Your task to perform on an android device: check google app version Image 0: 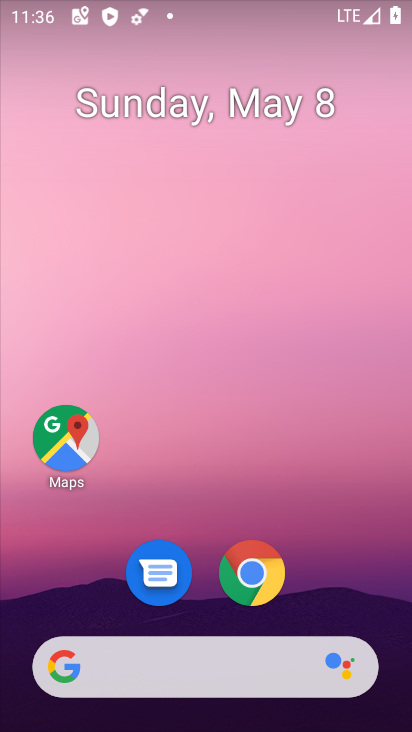
Step 0: drag from (317, 569) to (304, 36)
Your task to perform on an android device: check google app version Image 1: 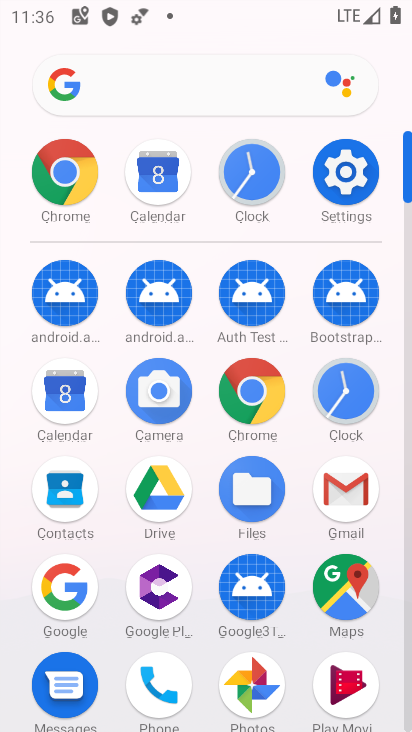
Step 1: drag from (8, 605) to (2, 229)
Your task to perform on an android device: check google app version Image 2: 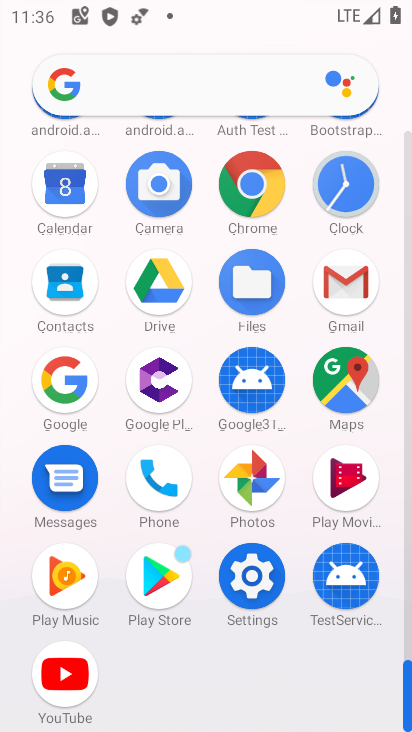
Step 2: click (65, 376)
Your task to perform on an android device: check google app version Image 3: 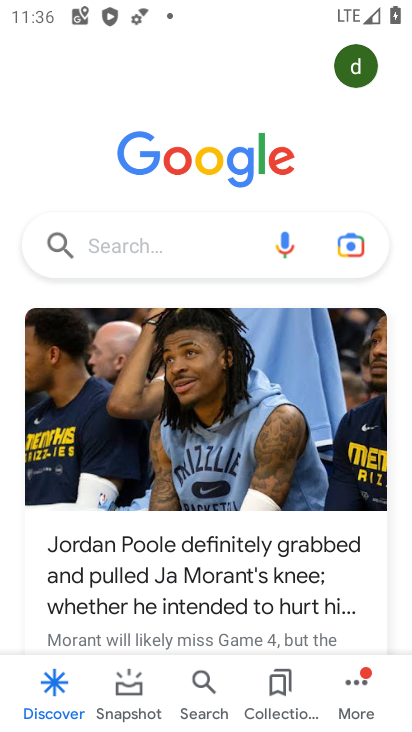
Step 3: drag from (231, 502) to (228, 124)
Your task to perform on an android device: check google app version Image 4: 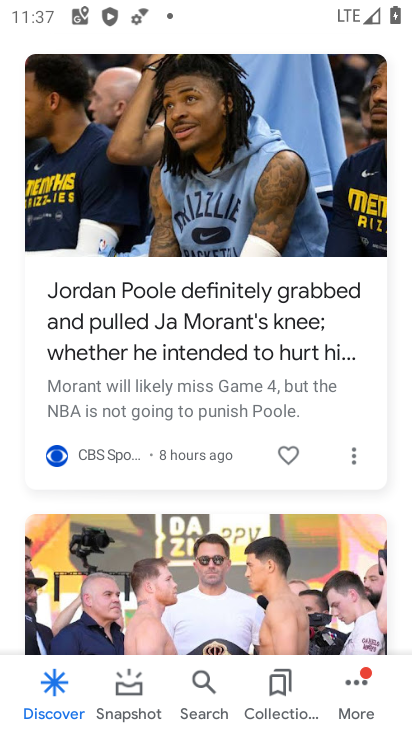
Step 4: click (347, 684)
Your task to perform on an android device: check google app version Image 5: 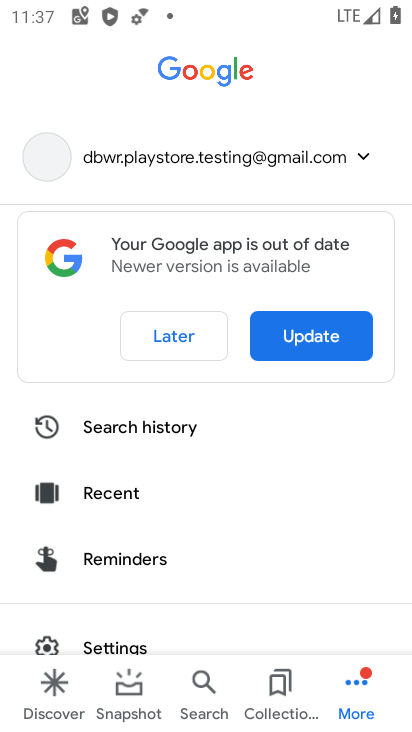
Step 5: click (360, 679)
Your task to perform on an android device: check google app version Image 6: 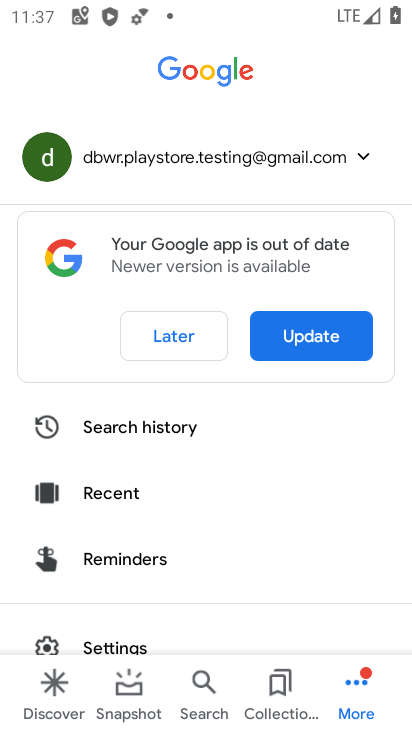
Step 6: drag from (211, 616) to (188, 196)
Your task to perform on an android device: check google app version Image 7: 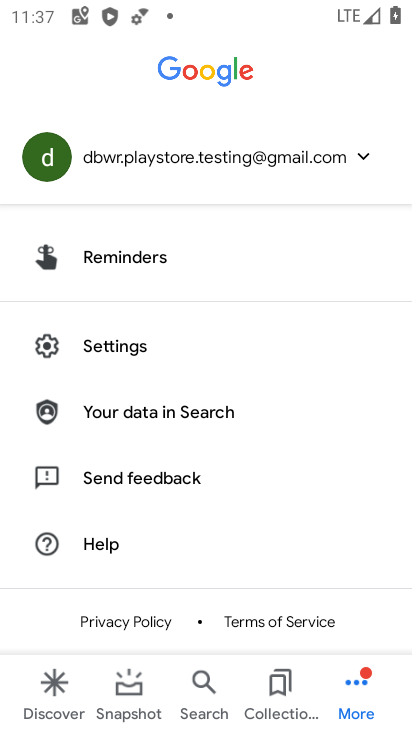
Step 7: click (120, 347)
Your task to perform on an android device: check google app version Image 8: 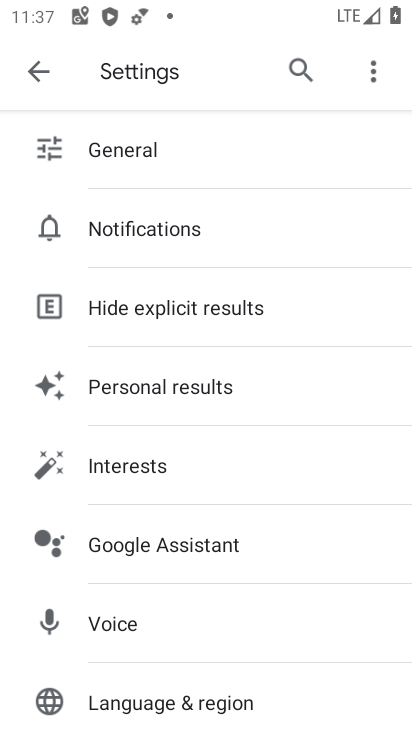
Step 8: drag from (207, 543) to (248, 157)
Your task to perform on an android device: check google app version Image 9: 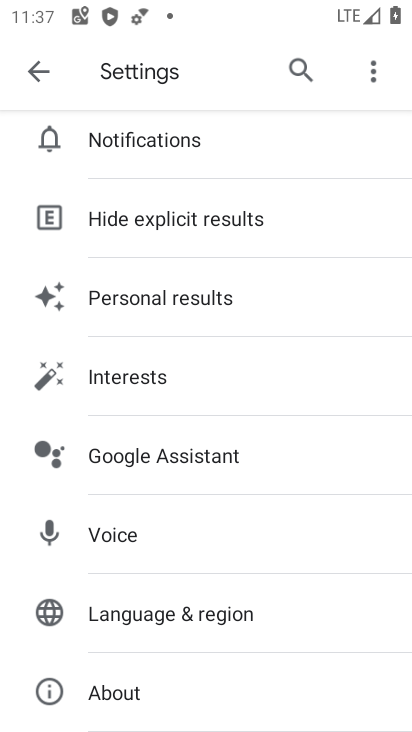
Step 9: click (146, 688)
Your task to perform on an android device: check google app version Image 10: 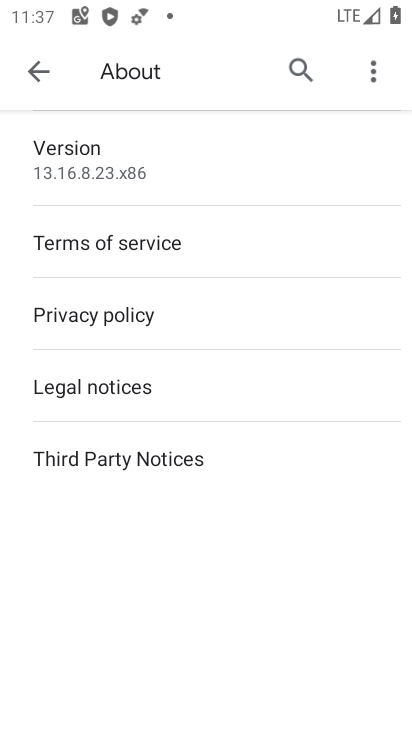
Step 10: task complete